Your task to perform on an android device: See recent photos Image 0: 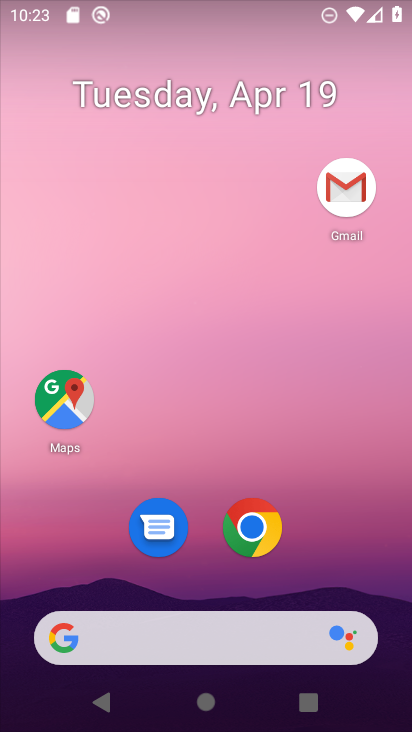
Step 0: drag from (339, 541) to (358, 147)
Your task to perform on an android device: See recent photos Image 1: 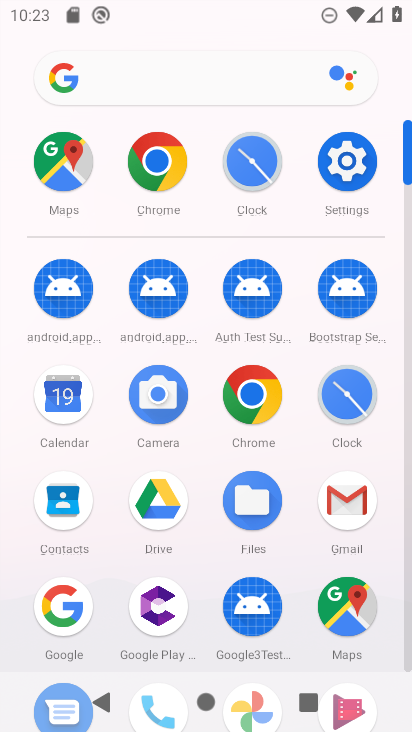
Step 1: drag from (292, 541) to (292, 178)
Your task to perform on an android device: See recent photos Image 2: 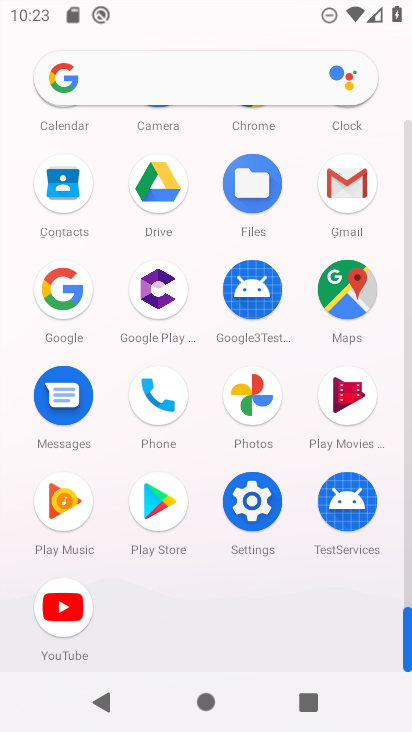
Step 2: click (266, 413)
Your task to perform on an android device: See recent photos Image 3: 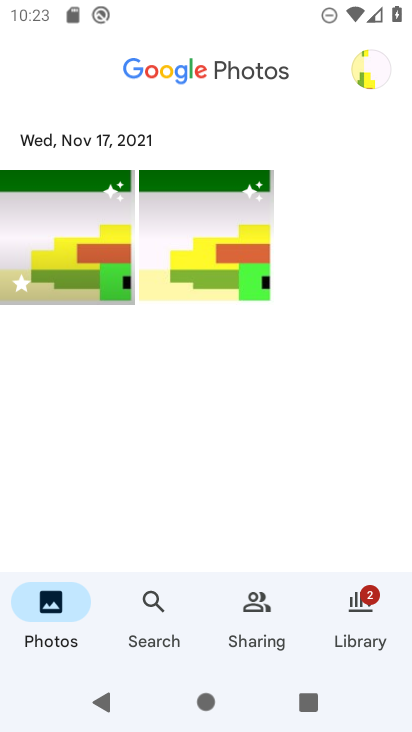
Step 3: task complete